Your task to perform on an android device: Open location settings Image 0: 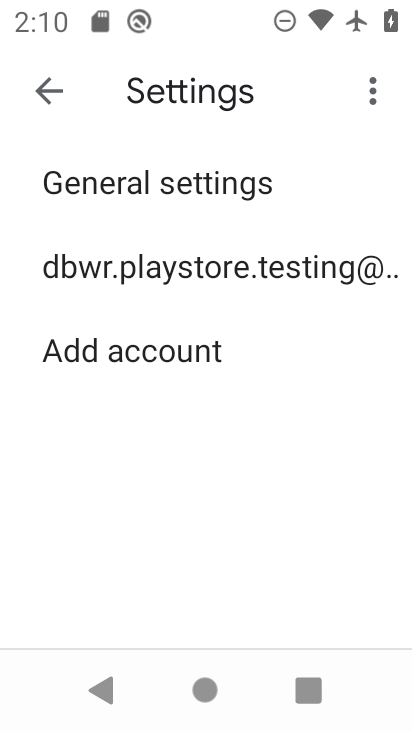
Step 0: press home button
Your task to perform on an android device: Open location settings Image 1: 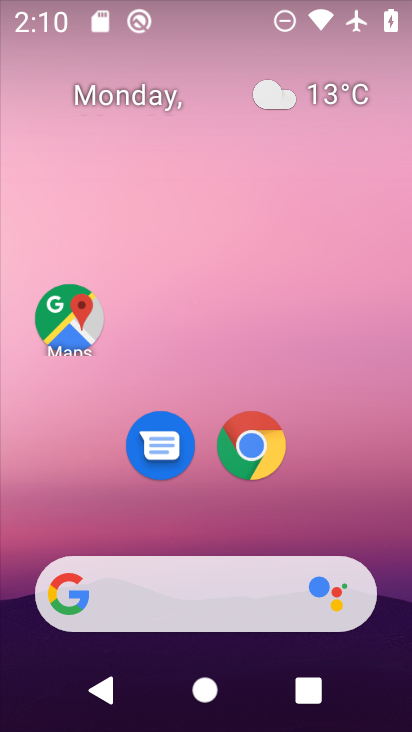
Step 1: drag from (396, 642) to (360, 86)
Your task to perform on an android device: Open location settings Image 2: 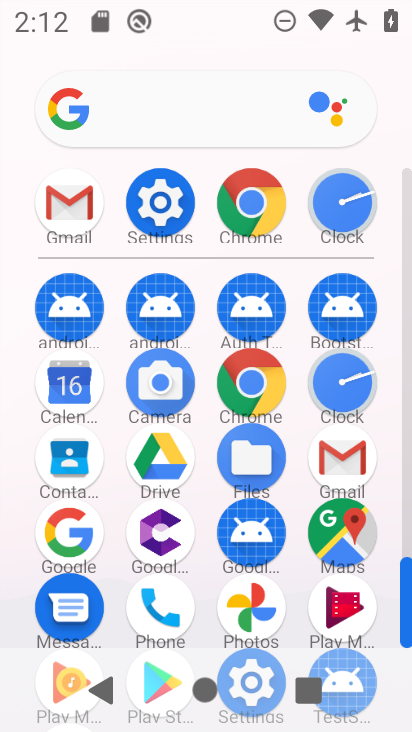
Step 2: click (166, 217)
Your task to perform on an android device: Open location settings Image 3: 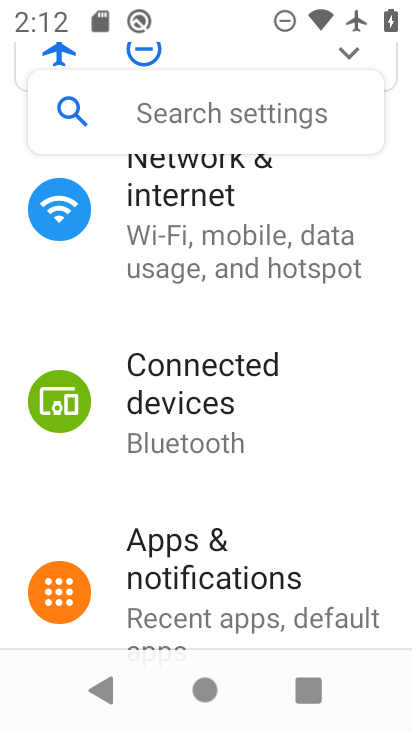
Step 3: drag from (205, 607) to (239, 179)
Your task to perform on an android device: Open location settings Image 4: 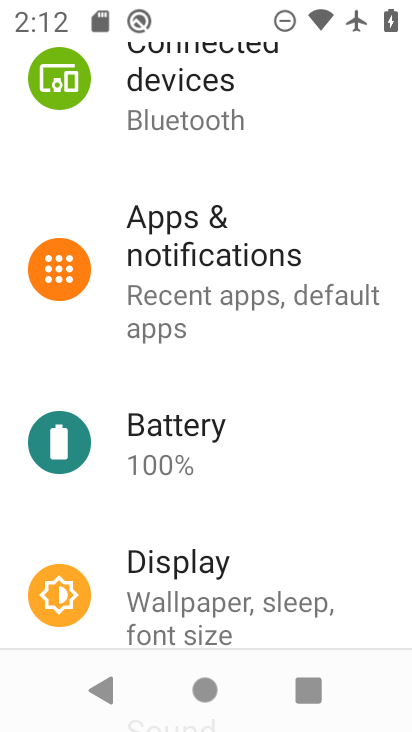
Step 4: drag from (221, 568) to (290, 121)
Your task to perform on an android device: Open location settings Image 5: 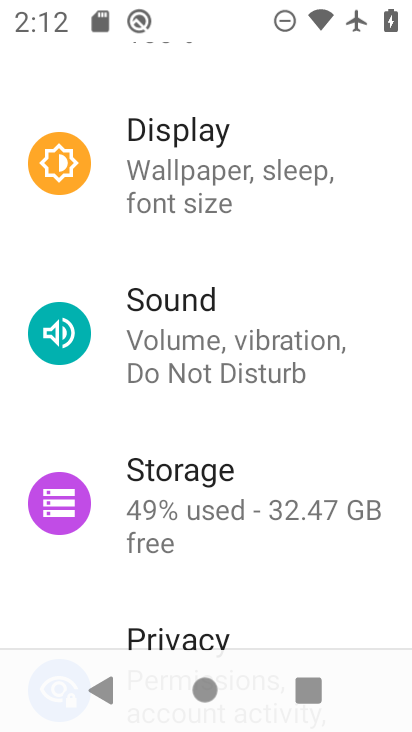
Step 5: drag from (244, 563) to (314, 183)
Your task to perform on an android device: Open location settings Image 6: 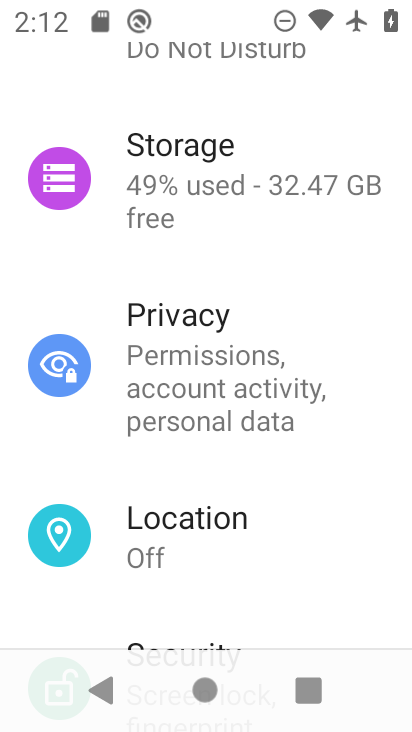
Step 6: click (240, 545)
Your task to perform on an android device: Open location settings Image 7: 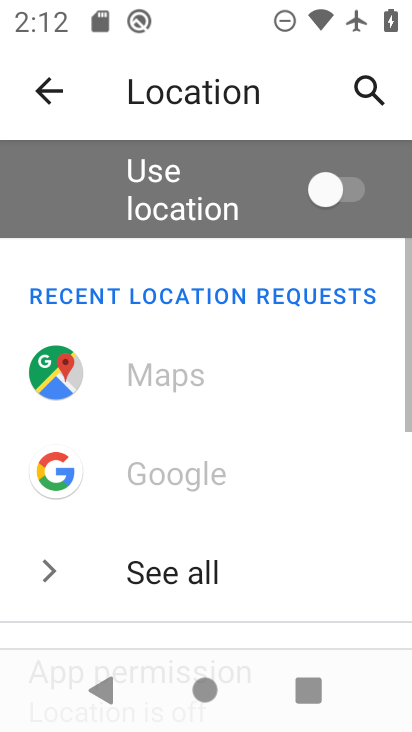
Step 7: task complete